Your task to perform on an android device: Open ESPN.com Image 0: 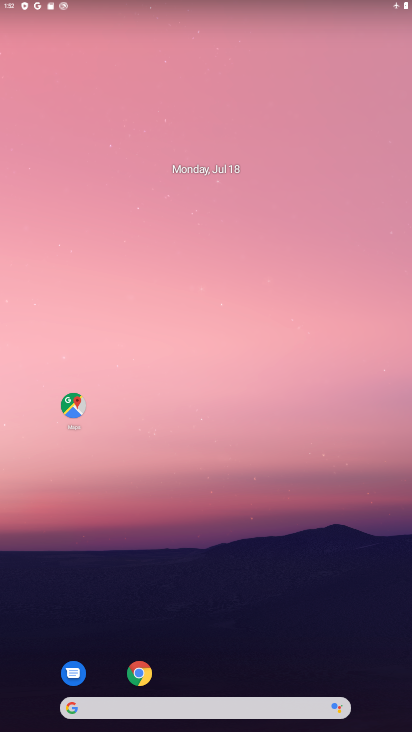
Step 0: click (141, 673)
Your task to perform on an android device: Open ESPN.com Image 1: 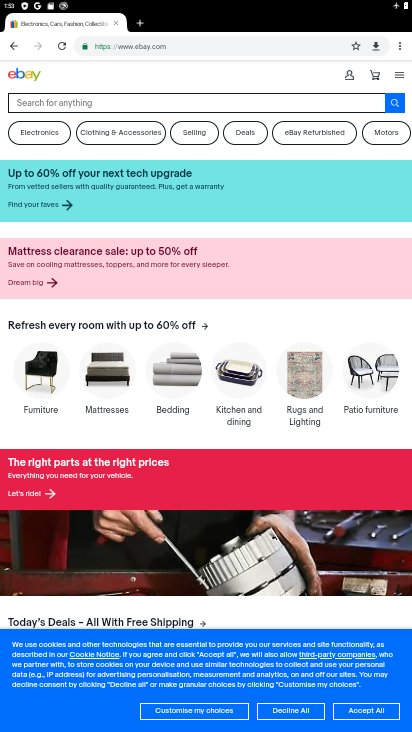
Step 1: click (401, 47)
Your task to perform on an android device: Open ESPN.com Image 2: 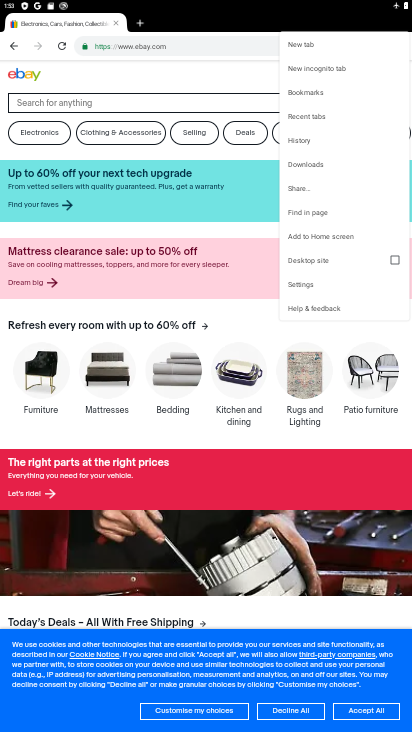
Step 2: click (297, 44)
Your task to perform on an android device: Open ESPN.com Image 3: 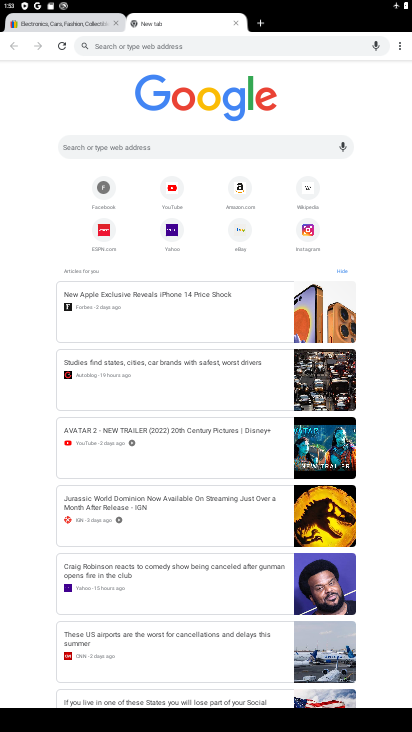
Step 3: click (112, 240)
Your task to perform on an android device: Open ESPN.com Image 4: 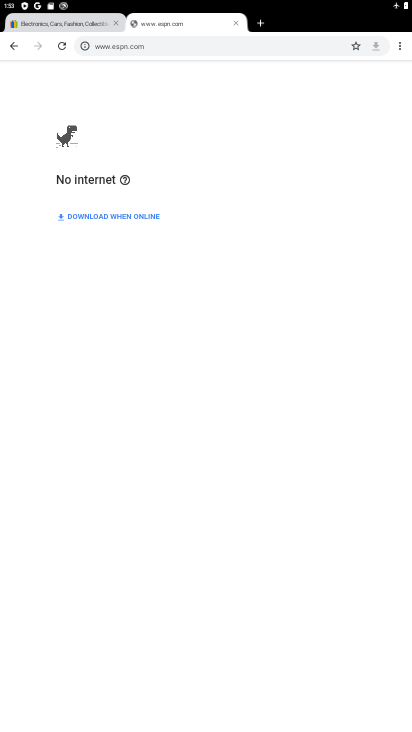
Step 4: task complete